Your task to perform on an android device: check out phone information Image 0: 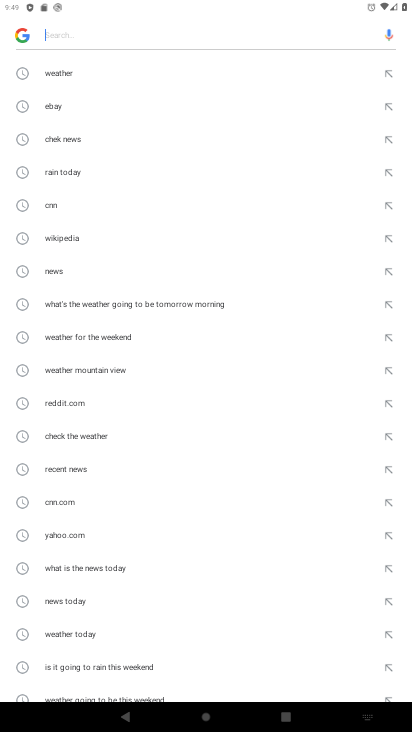
Step 0: press home button
Your task to perform on an android device: check out phone information Image 1: 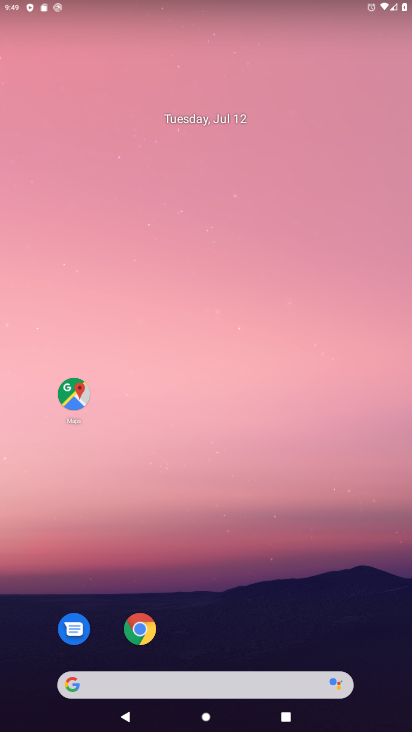
Step 1: drag from (389, 655) to (319, 201)
Your task to perform on an android device: check out phone information Image 2: 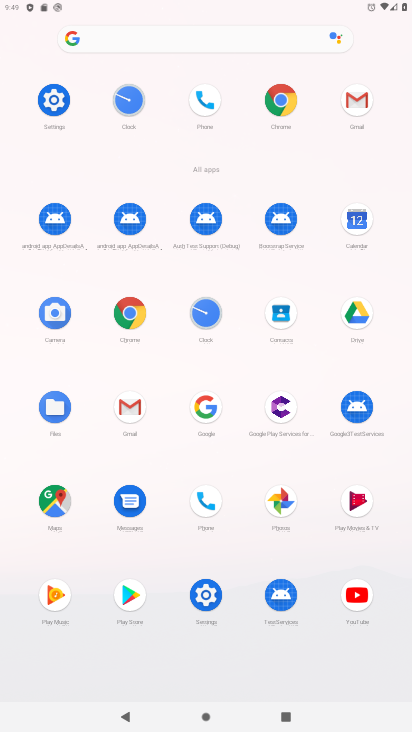
Step 2: click (206, 595)
Your task to perform on an android device: check out phone information Image 3: 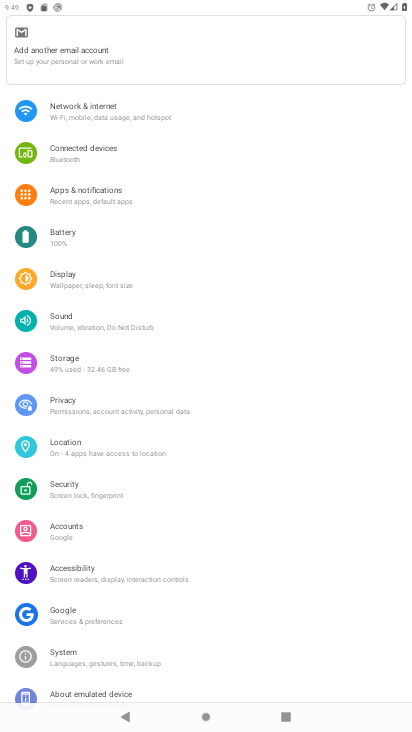
Step 3: drag from (239, 684) to (223, 329)
Your task to perform on an android device: check out phone information Image 4: 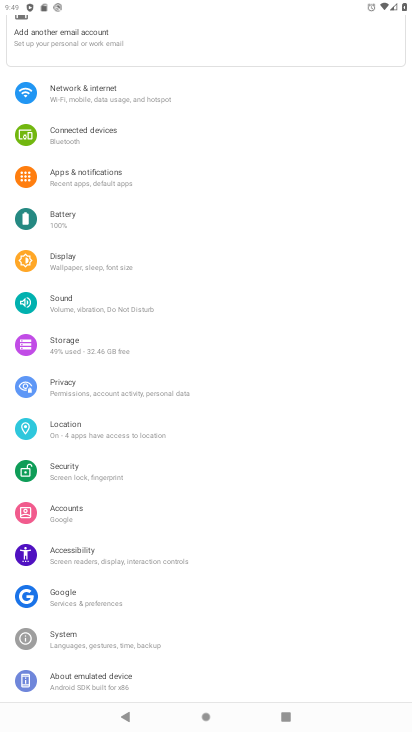
Step 4: click (59, 677)
Your task to perform on an android device: check out phone information Image 5: 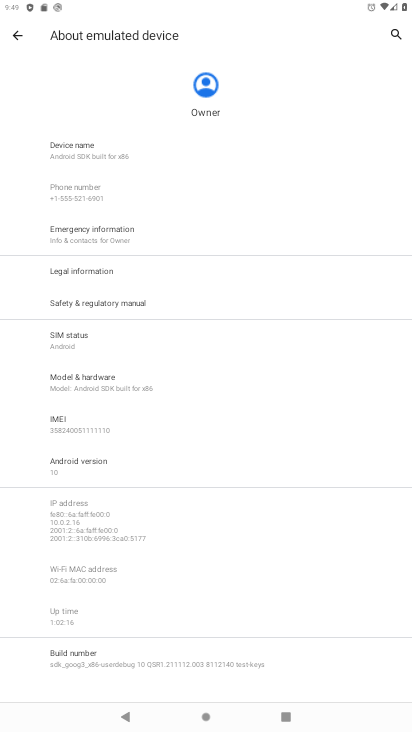
Step 5: task complete